Your task to perform on an android device: Open CNN.com Image 0: 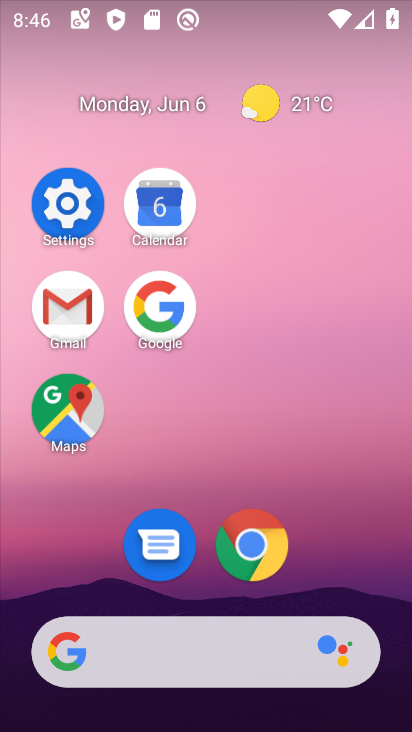
Step 0: click (163, 302)
Your task to perform on an android device: Open CNN.com Image 1: 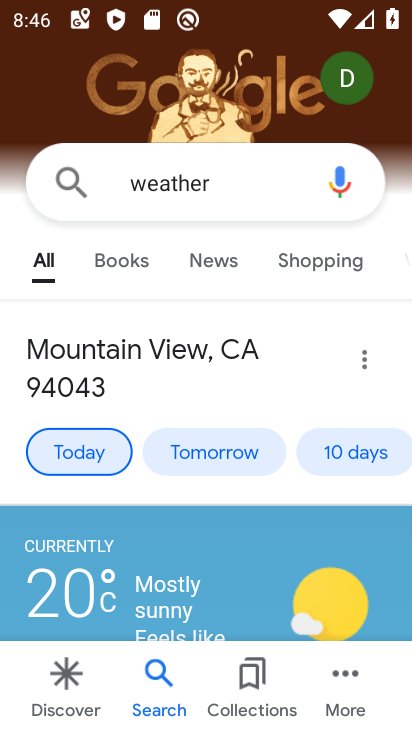
Step 1: click (263, 182)
Your task to perform on an android device: Open CNN.com Image 2: 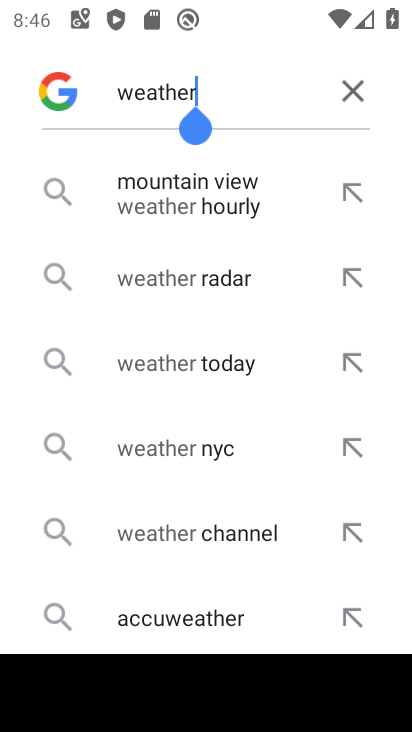
Step 2: drag from (354, 93) to (291, 93)
Your task to perform on an android device: Open CNN.com Image 3: 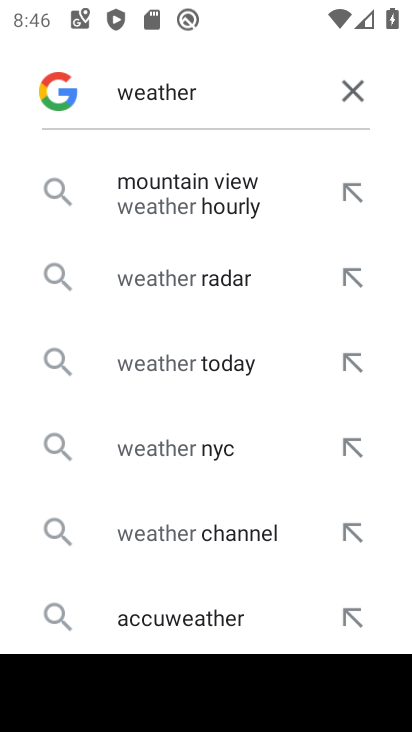
Step 3: click (358, 98)
Your task to perform on an android device: Open CNN.com Image 4: 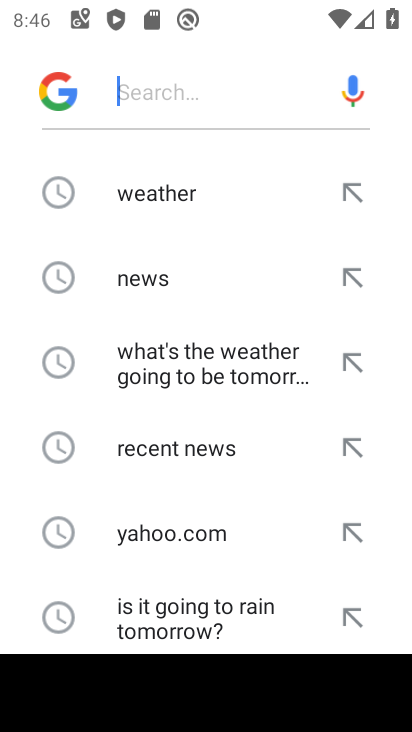
Step 4: drag from (244, 506) to (221, 146)
Your task to perform on an android device: Open CNN.com Image 5: 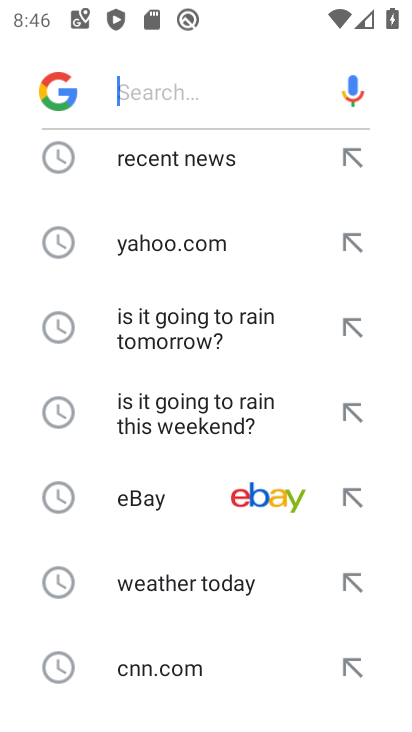
Step 5: drag from (150, 610) to (194, 265)
Your task to perform on an android device: Open CNN.com Image 6: 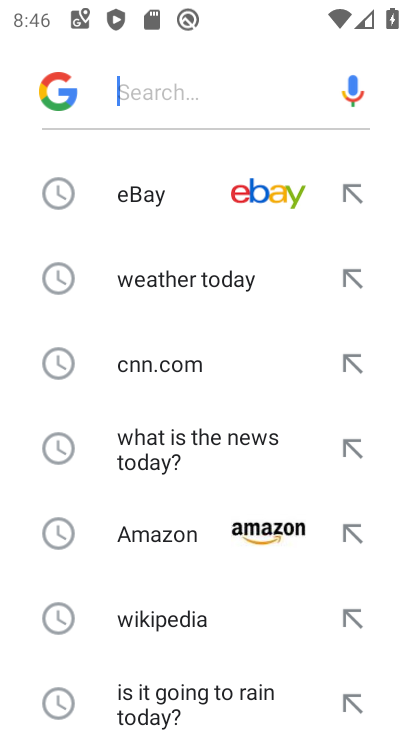
Step 6: click (159, 361)
Your task to perform on an android device: Open CNN.com Image 7: 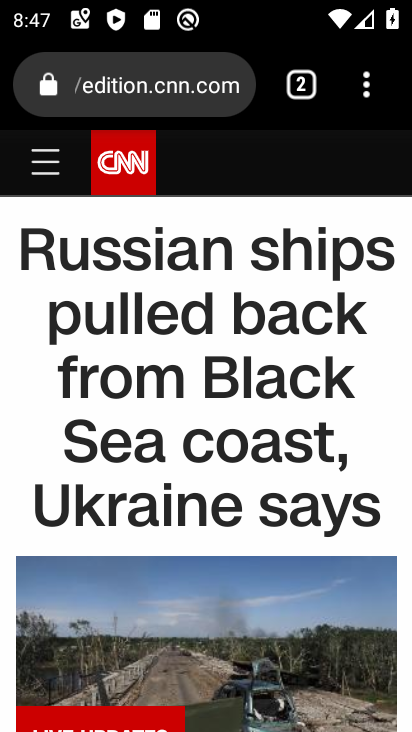
Step 7: task complete